Your task to perform on an android device: turn on location history Image 0: 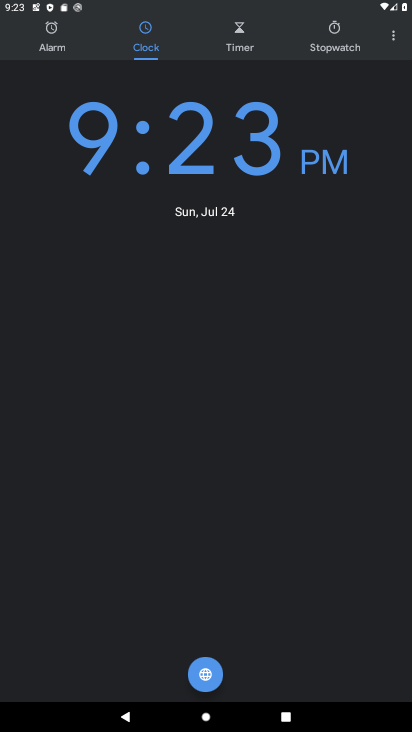
Step 0: press home button
Your task to perform on an android device: turn on location history Image 1: 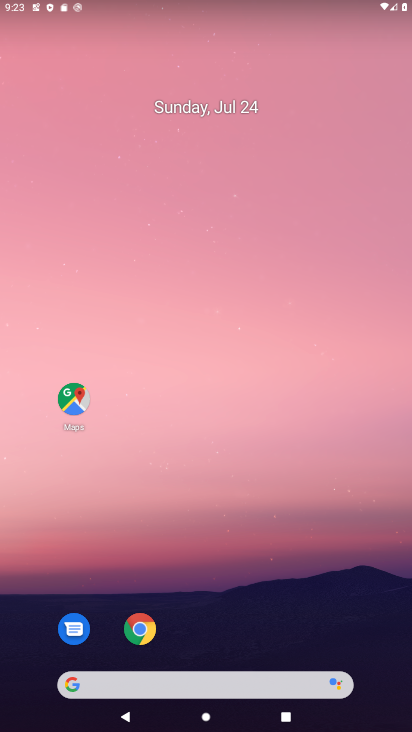
Step 1: drag from (242, 650) to (240, 11)
Your task to perform on an android device: turn on location history Image 2: 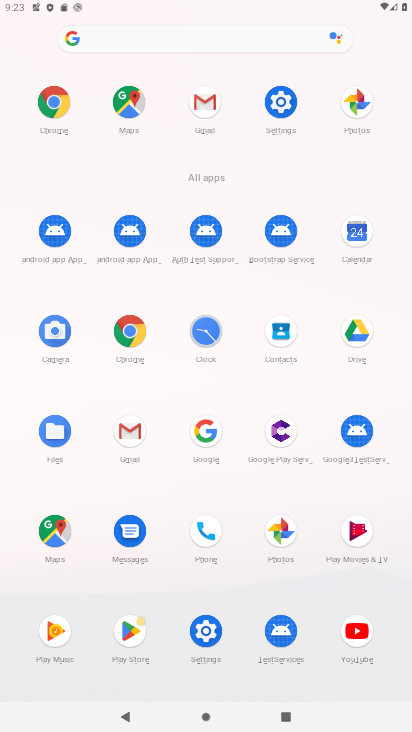
Step 2: click (219, 650)
Your task to perform on an android device: turn on location history Image 3: 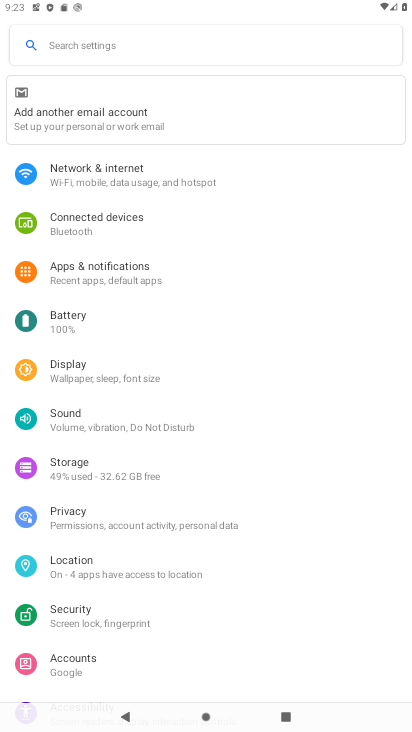
Step 3: click (104, 558)
Your task to perform on an android device: turn on location history Image 4: 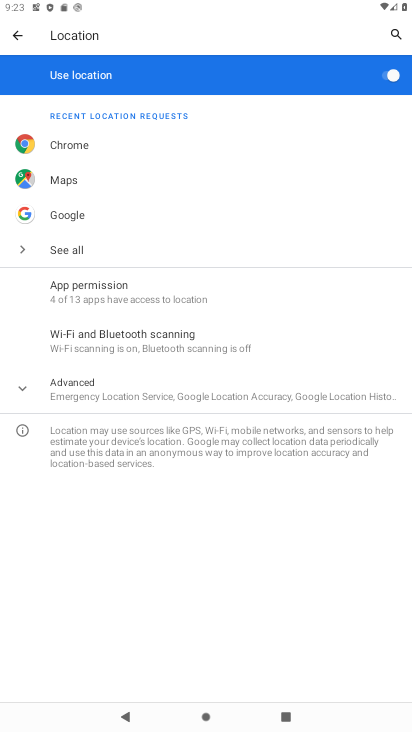
Step 4: task complete